Your task to perform on an android device: Open calendar and show me the fourth week of next month Image 0: 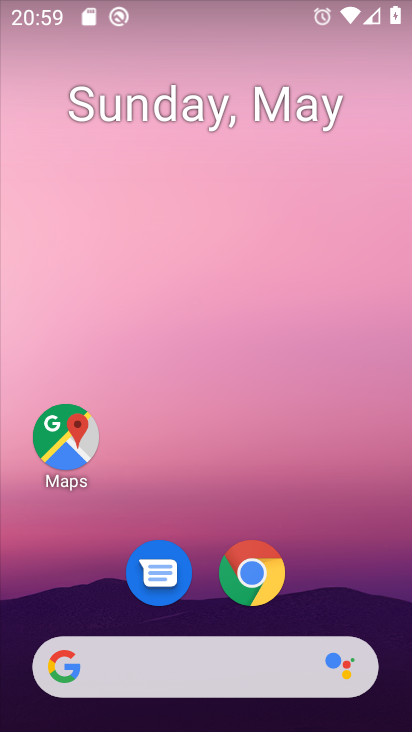
Step 0: drag from (231, 484) to (232, 20)
Your task to perform on an android device: Open calendar and show me the fourth week of next month Image 1: 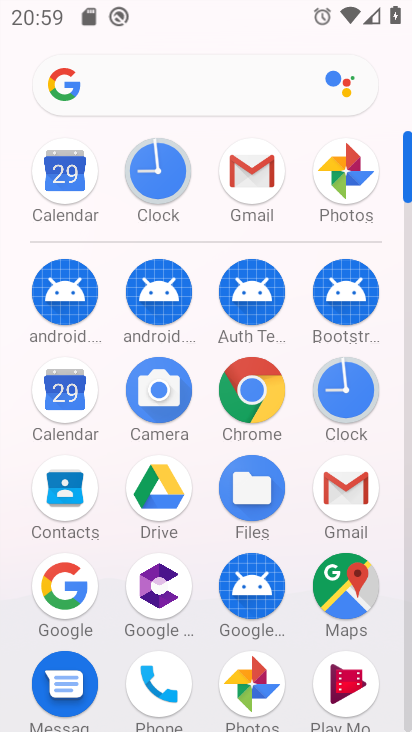
Step 1: click (82, 179)
Your task to perform on an android device: Open calendar and show me the fourth week of next month Image 2: 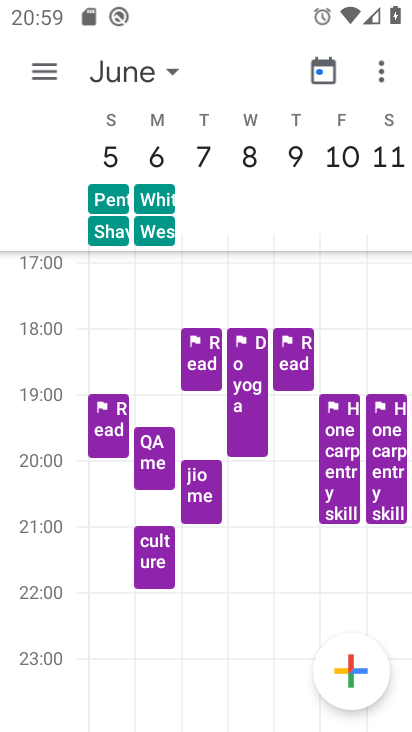
Step 2: task complete